Your task to perform on an android device: uninstall "Clock" Image 0: 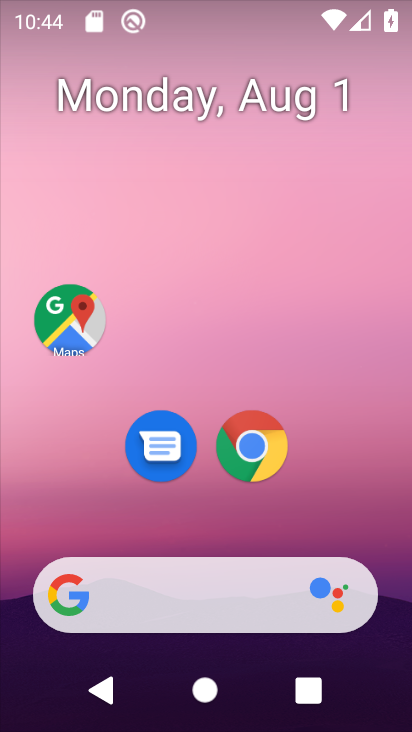
Step 0: drag from (223, 517) to (263, 3)
Your task to perform on an android device: uninstall "Clock" Image 1: 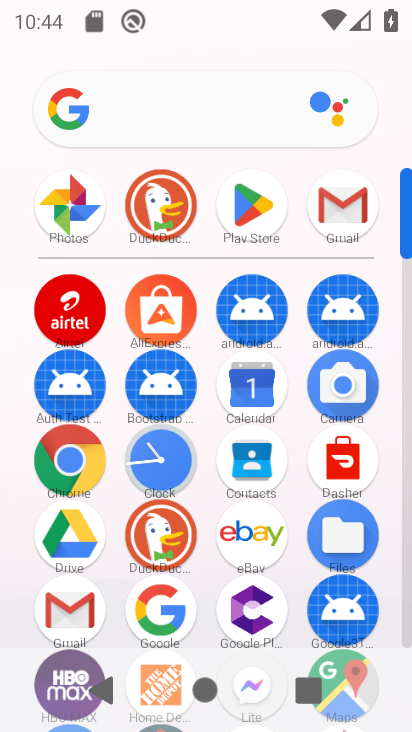
Step 1: click (260, 238)
Your task to perform on an android device: uninstall "Clock" Image 2: 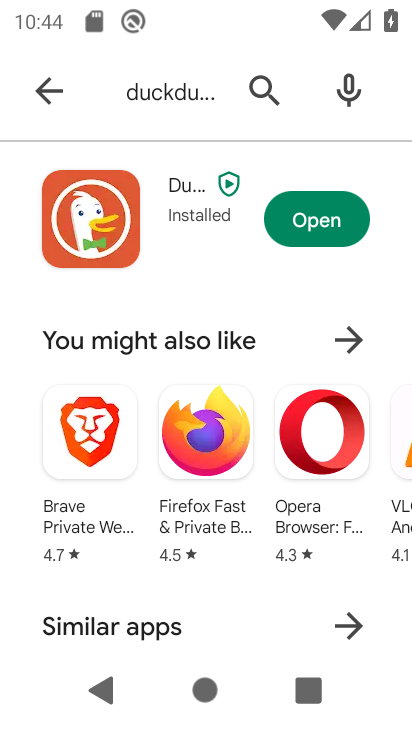
Step 2: click (274, 100)
Your task to perform on an android device: uninstall "Clock" Image 3: 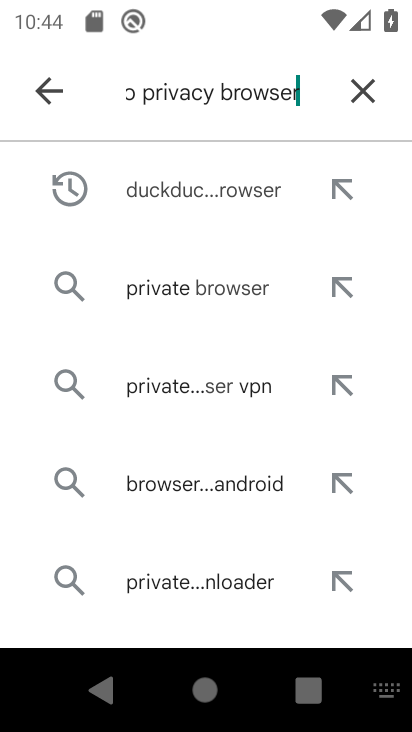
Step 3: click (356, 85)
Your task to perform on an android device: uninstall "Clock" Image 4: 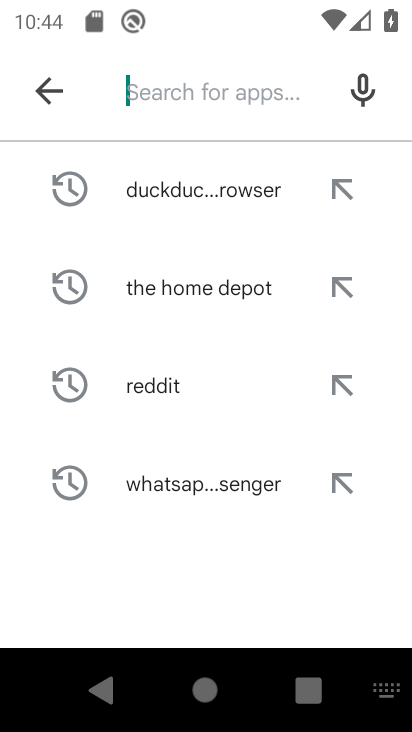
Step 4: type "Clock"
Your task to perform on an android device: uninstall "Clock" Image 5: 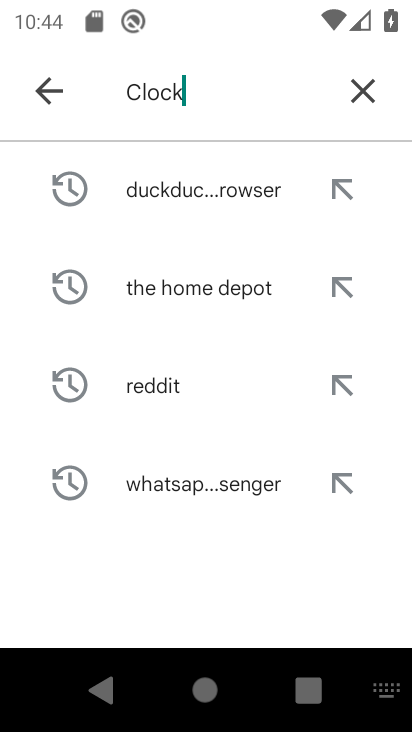
Step 5: type ""
Your task to perform on an android device: uninstall "Clock" Image 6: 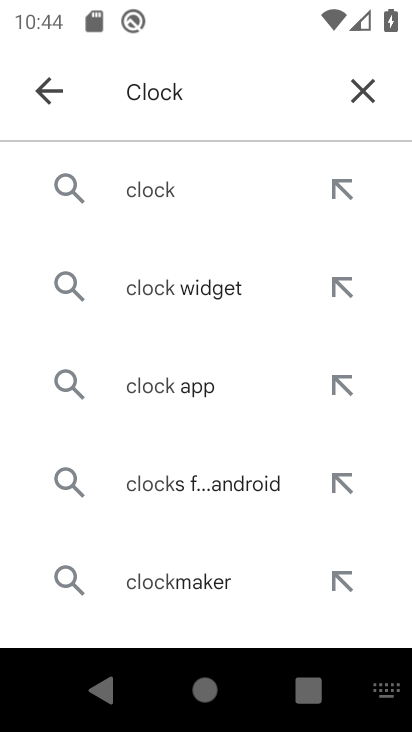
Step 6: click (133, 203)
Your task to perform on an android device: uninstall "Clock" Image 7: 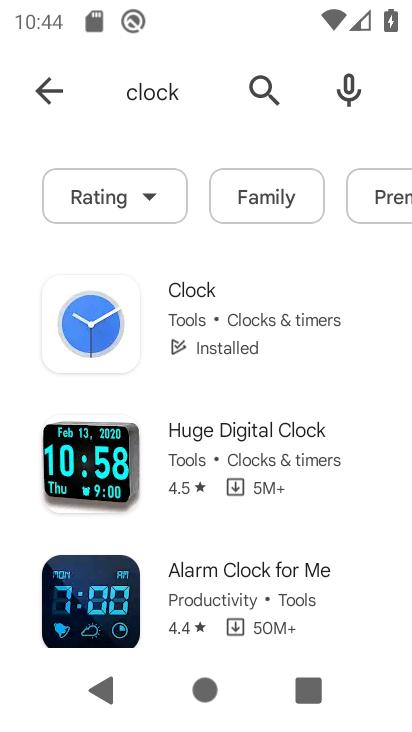
Step 7: click (206, 291)
Your task to perform on an android device: uninstall "Clock" Image 8: 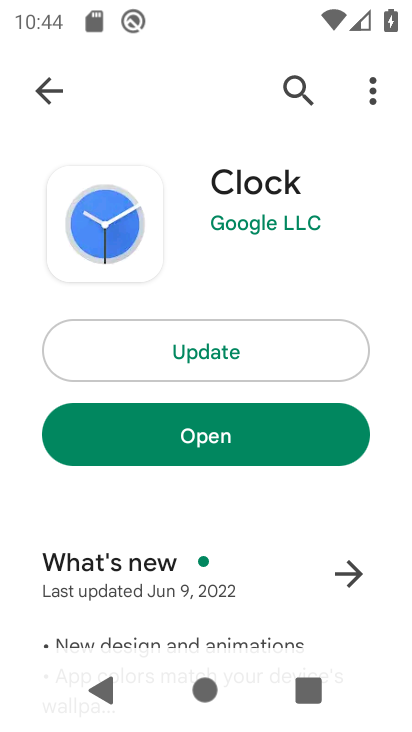
Step 8: click (273, 363)
Your task to perform on an android device: uninstall "Clock" Image 9: 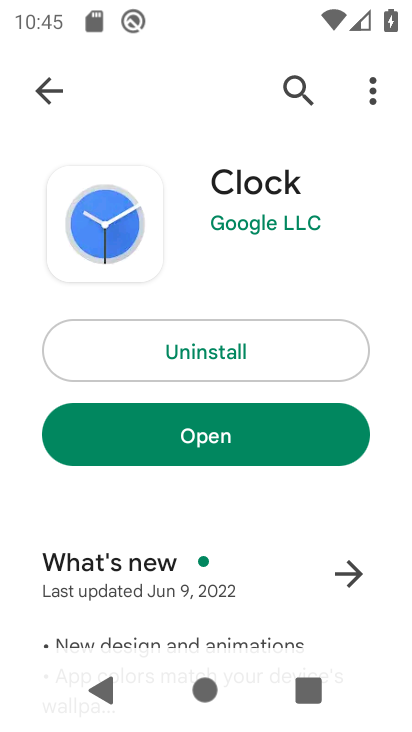
Step 9: click (168, 343)
Your task to perform on an android device: uninstall "Clock" Image 10: 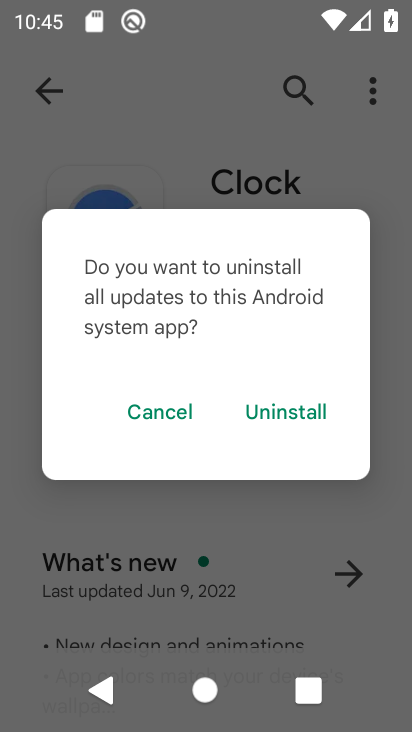
Step 10: click (286, 412)
Your task to perform on an android device: uninstall "Clock" Image 11: 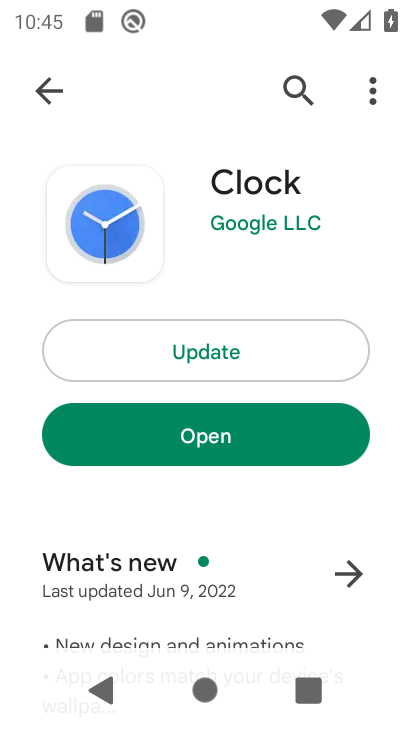
Step 11: task complete